Your task to perform on an android device: turn notification dots on Image 0: 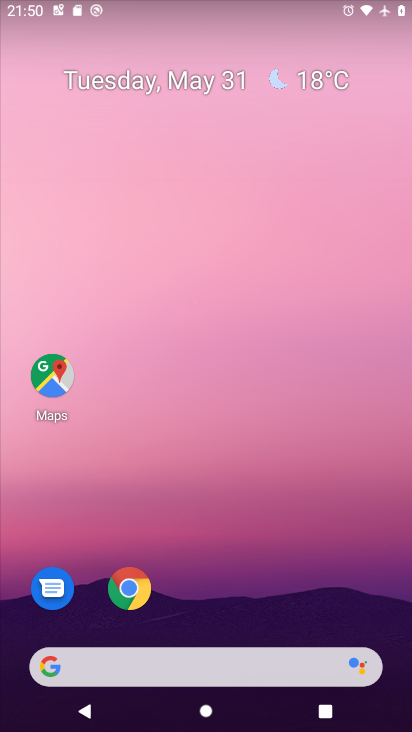
Step 0: drag from (178, 659) to (280, 136)
Your task to perform on an android device: turn notification dots on Image 1: 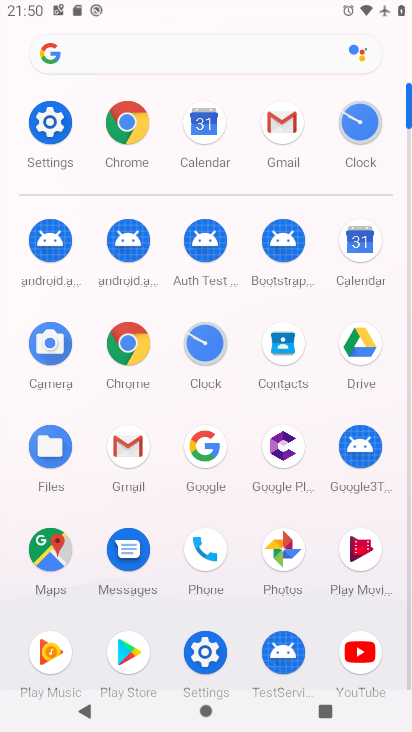
Step 1: click (56, 131)
Your task to perform on an android device: turn notification dots on Image 2: 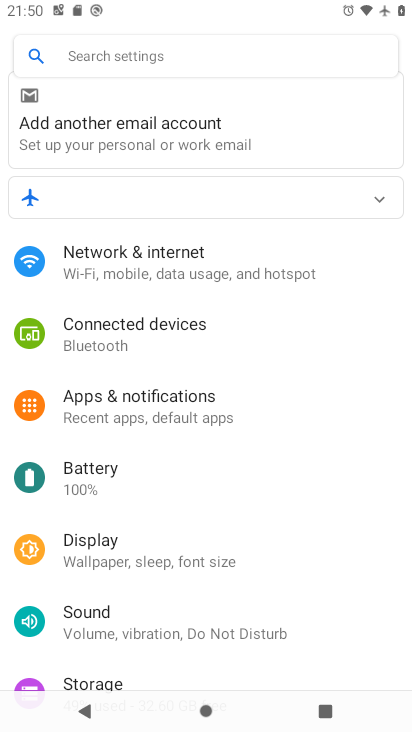
Step 2: click (154, 399)
Your task to perform on an android device: turn notification dots on Image 3: 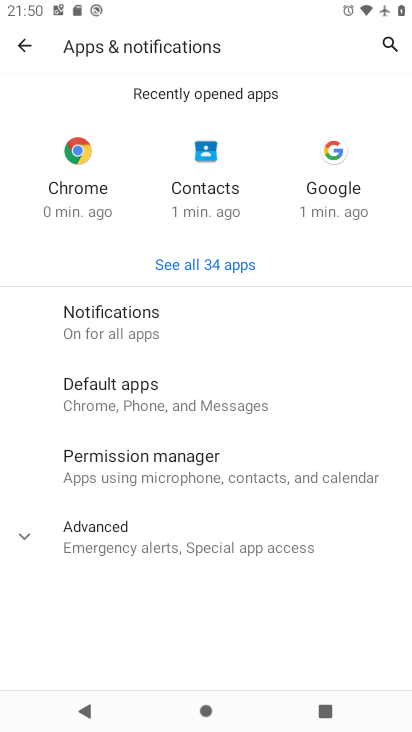
Step 3: click (104, 329)
Your task to perform on an android device: turn notification dots on Image 4: 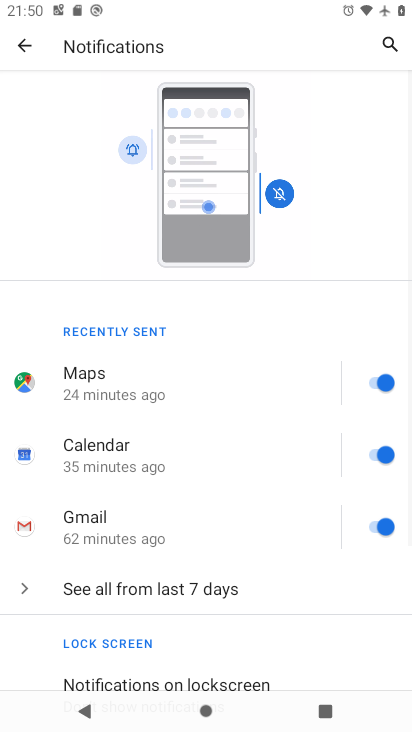
Step 4: drag from (209, 572) to (369, 237)
Your task to perform on an android device: turn notification dots on Image 5: 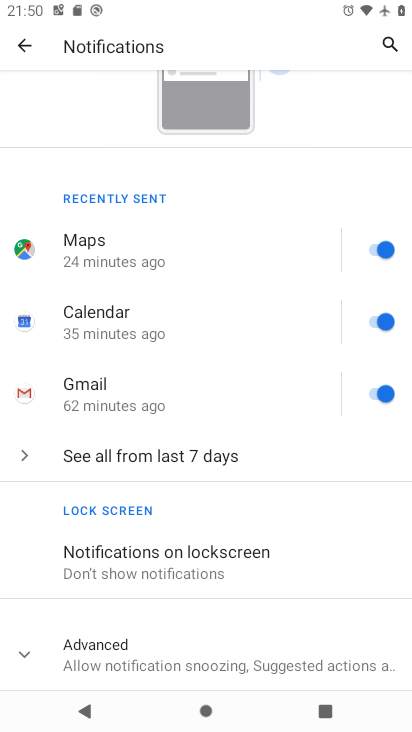
Step 5: click (120, 660)
Your task to perform on an android device: turn notification dots on Image 6: 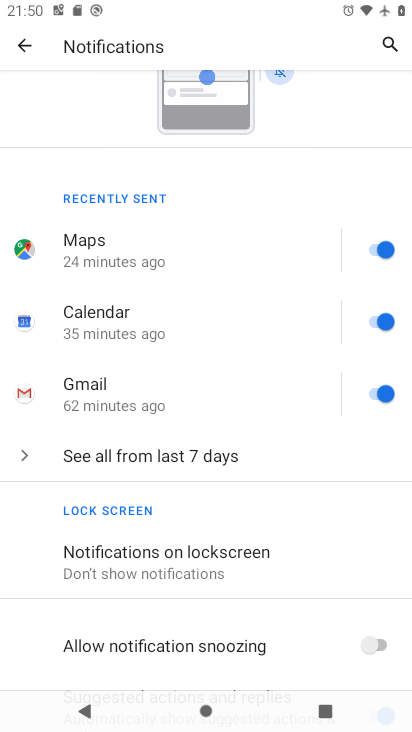
Step 6: task complete